Your task to perform on an android device: change the clock display to show seconds Image 0: 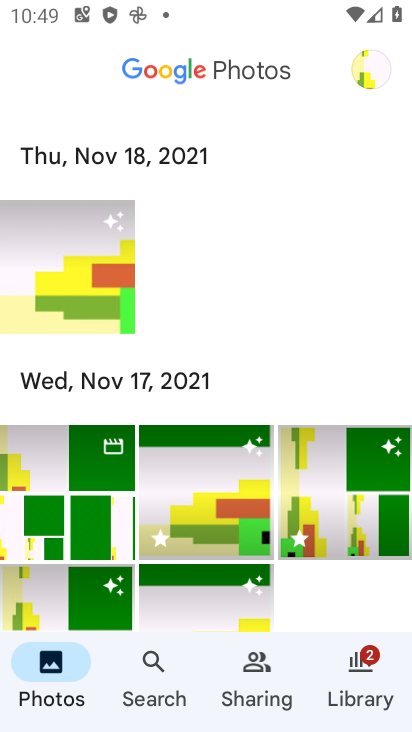
Step 0: press home button
Your task to perform on an android device: change the clock display to show seconds Image 1: 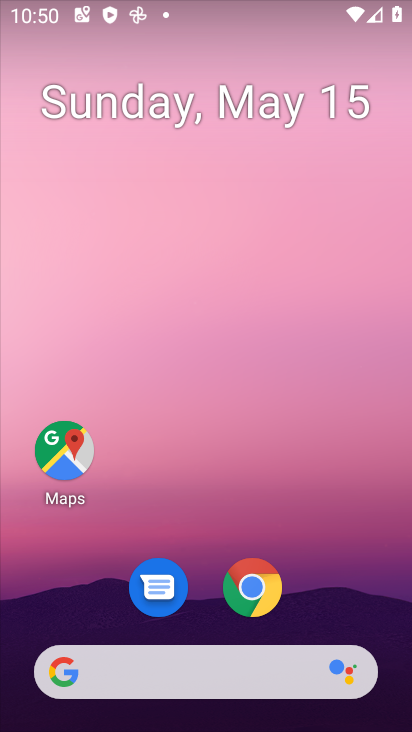
Step 1: drag from (380, 613) to (247, 56)
Your task to perform on an android device: change the clock display to show seconds Image 2: 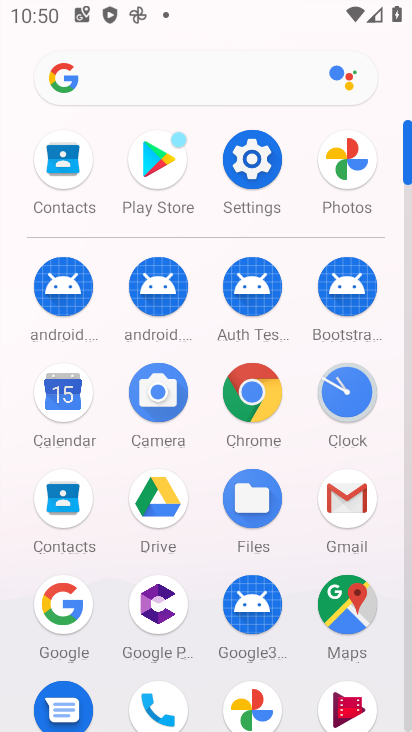
Step 2: click (333, 383)
Your task to perform on an android device: change the clock display to show seconds Image 3: 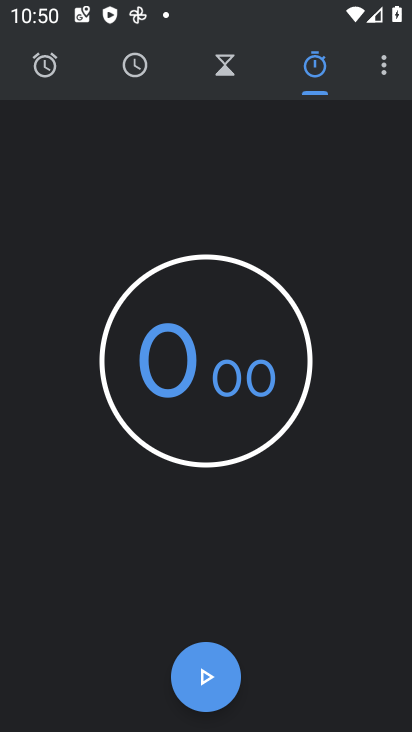
Step 3: click (381, 75)
Your task to perform on an android device: change the clock display to show seconds Image 4: 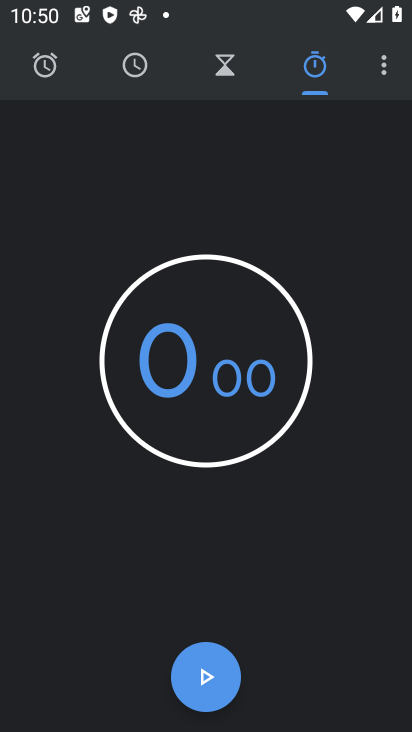
Step 4: click (381, 58)
Your task to perform on an android device: change the clock display to show seconds Image 5: 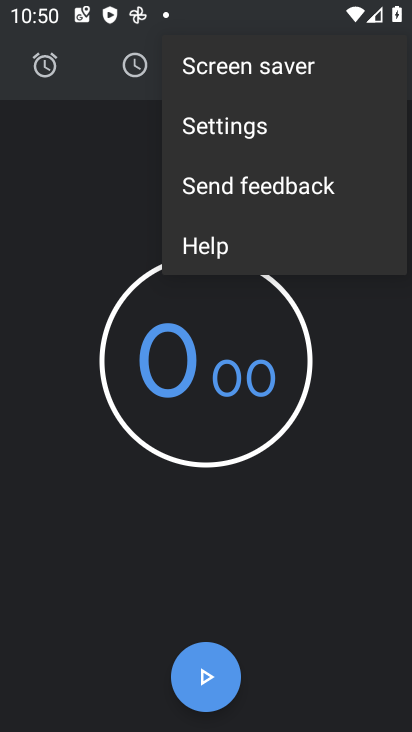
Step 5: click (299, 116)
Your task to perform on an android device: change the clock display to show seconds Image 6: 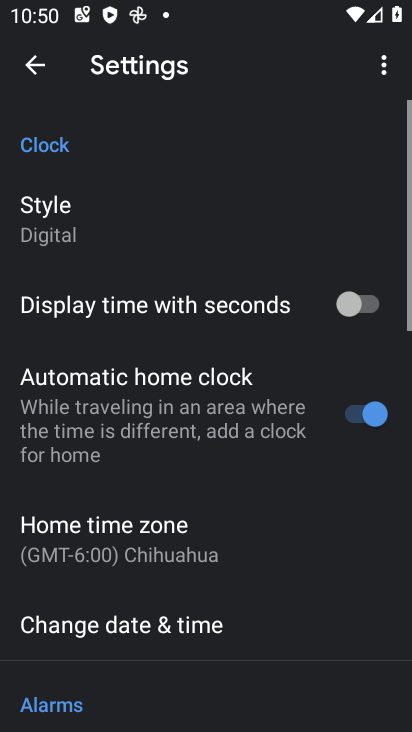
Step 6: click (243, 314)
Your task to perform on an android device: change the clock display to show seconds Image 7: 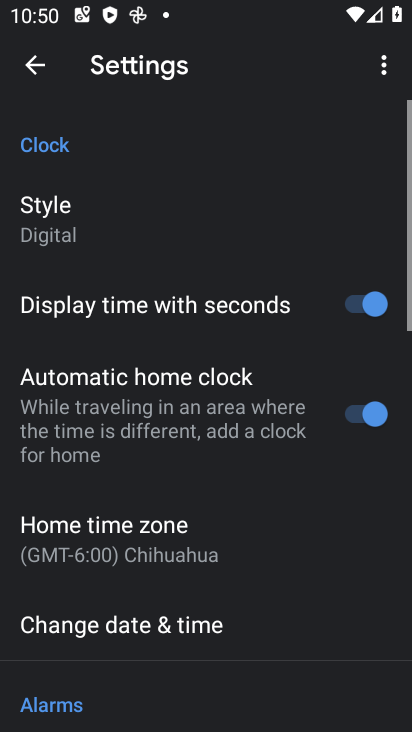
Step 7: task complete